Your task to perform on an android device: Open maps Image 0: 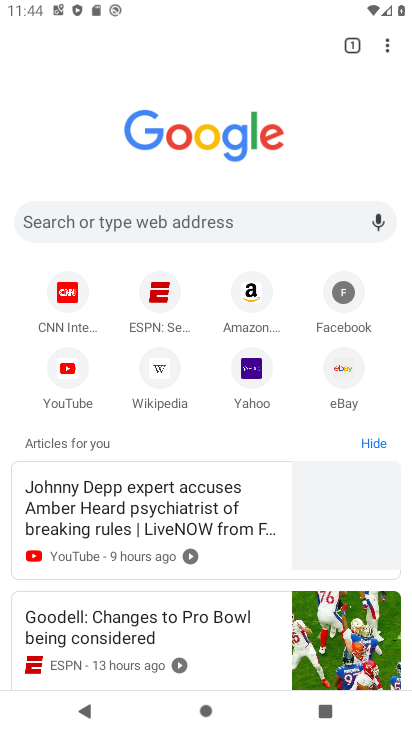
Step 0: press home button
Your task to perform on an android device: Open maps Image 1: 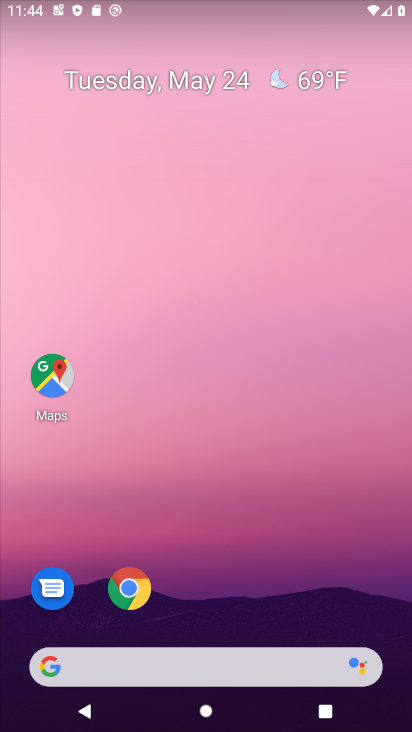
Step 1: click (54, 376)
Your task to perform on an android device: Open maps Image 2: 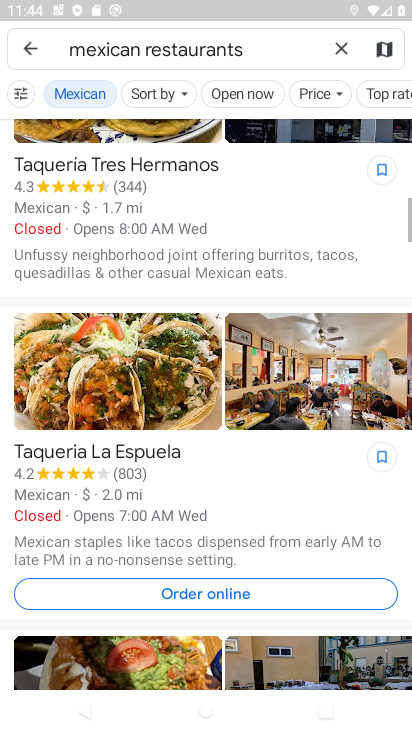
Step 2: click (37, 42)
Your task to perform on an android device: Open maps Image 3: 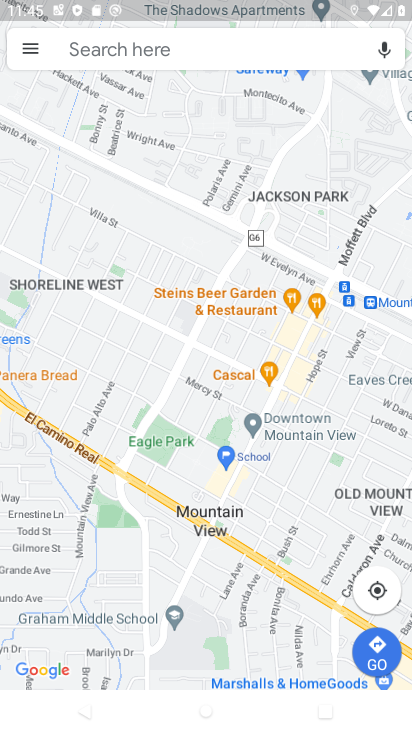
Step 3: task complete